Your task to perform on an android device: check battery use Image 0: 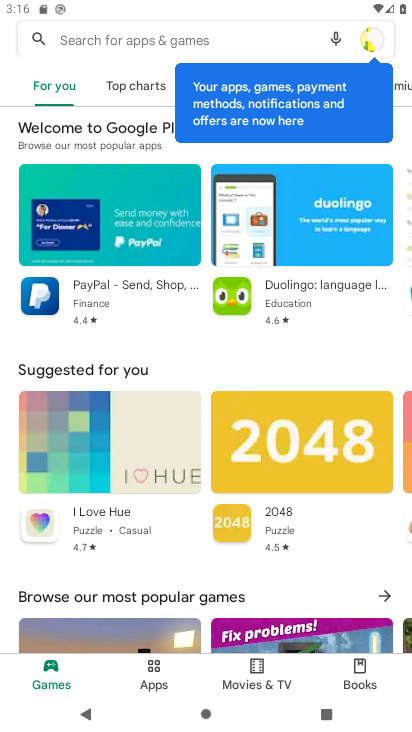
Step 0: press home button
Your task to perform on an android device: check battery use Image 1: 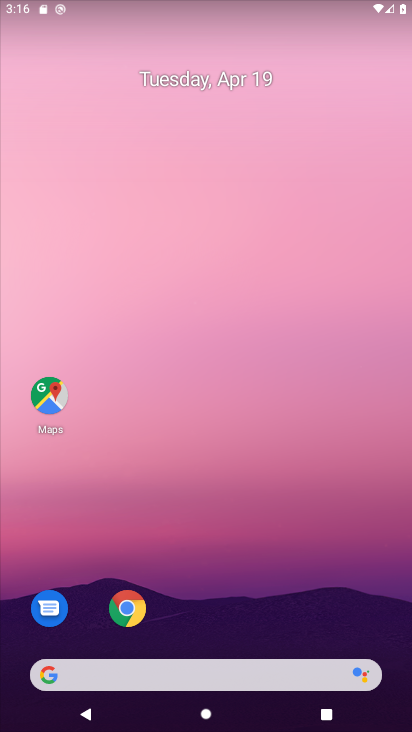
Step 1: drag from (260, 547) to (288, 113)
Your task to perform on an android device: check battery use Image 2: 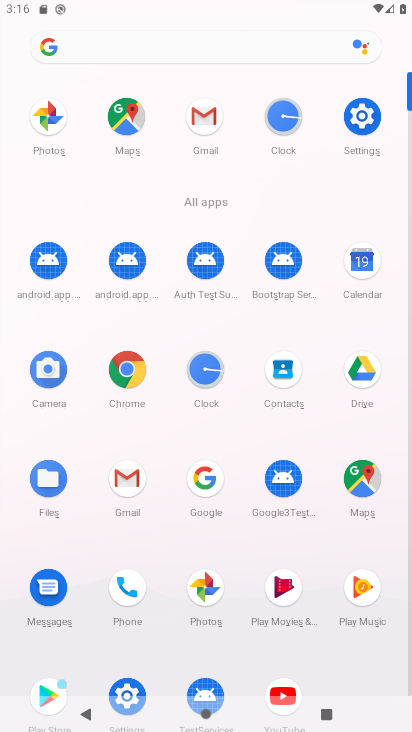
Step 2: click (367, 122)
Your task to perform on an android device: check battery use Image 3: 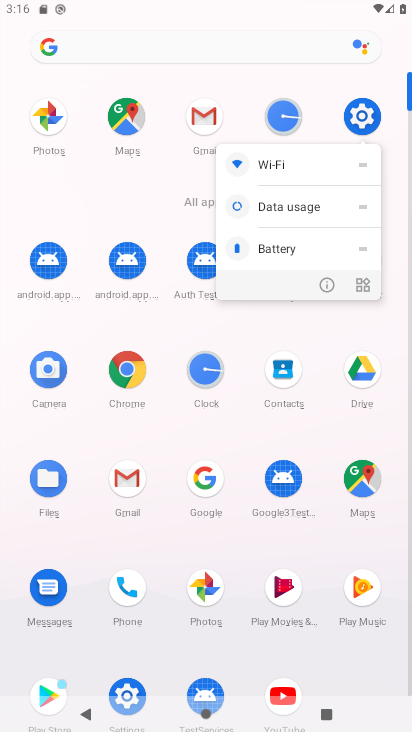
Step 3: click (367, 122)
Your task to perform on an android device: check battery use Image 4: 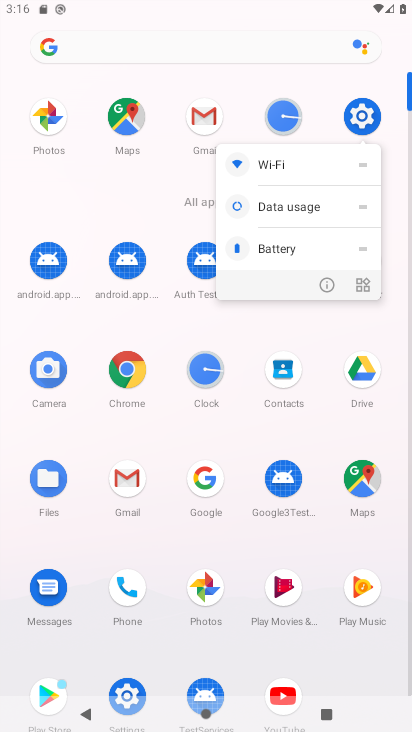
Step 4: click (363, 102)
Your task to perform on an android device: check battery use Image 5: 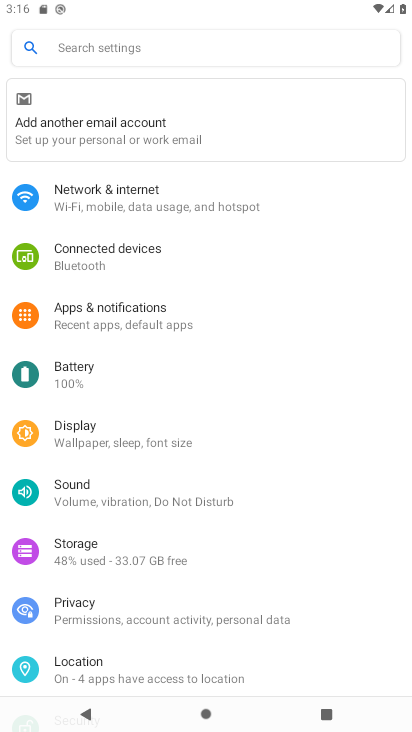
Step 5: click (60, 360)
Your task to perform on an android device: check battery use Image 6: 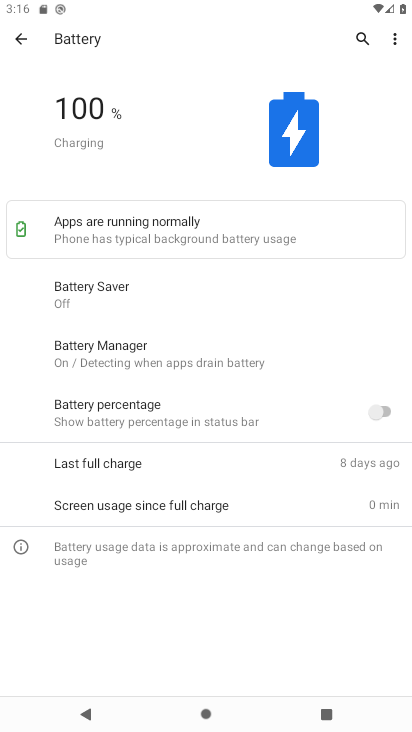
Step 6: click (397, 40)
Your task to perform on an android device: check battery use Image 7: 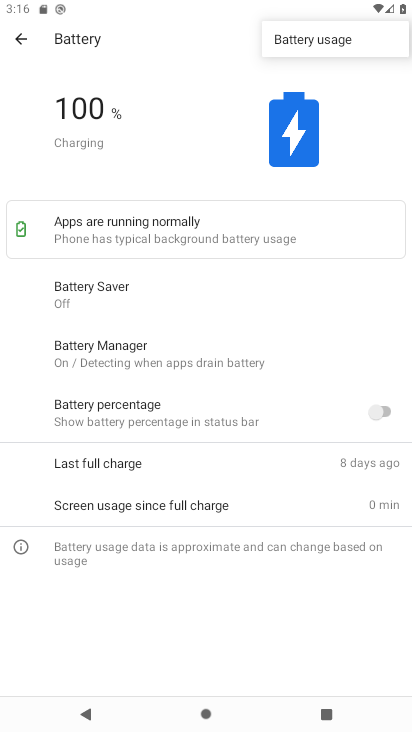
Step 7: click (323, 36)
Your task to perform on an android device: check battery use Image 8: 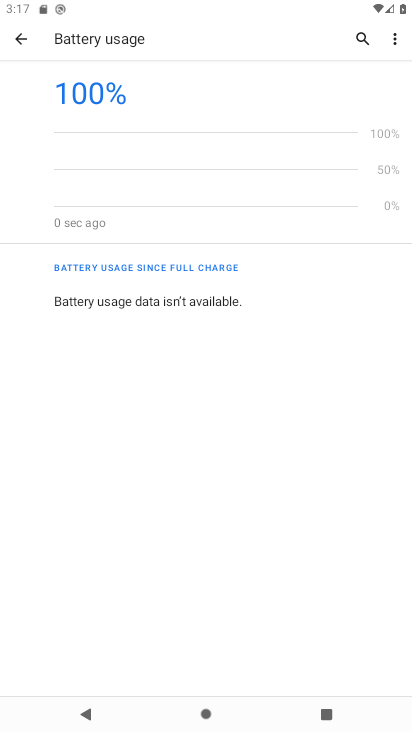
Step 8: task complete